Your task to perform on an android device: turn on the 24-hour format for clock Image 0: 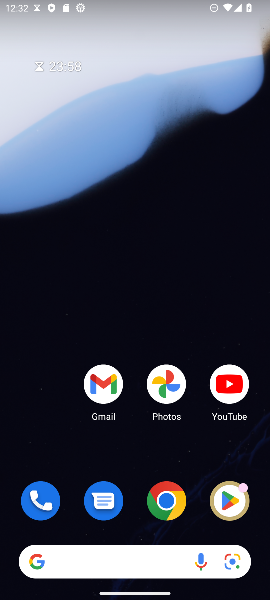
Step 0: drag from (128, 423) to (145, 238)
Your task to perform on an android device: turn on the 24-hour format for clock Image 1: 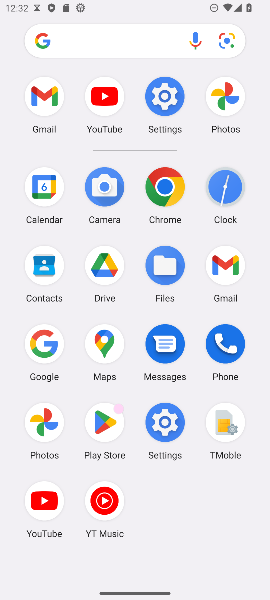
Step 1: click (221, 184)
Your task to perform on an android device: turn on the 24-hour format for clock Image 2: 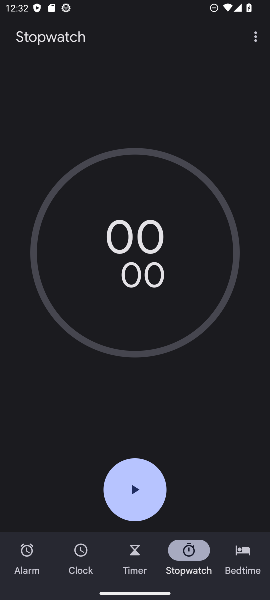
Step 2: click (253, 39)
Your task to perform on an android device: turn on the 24-hour format for clock Image 3: 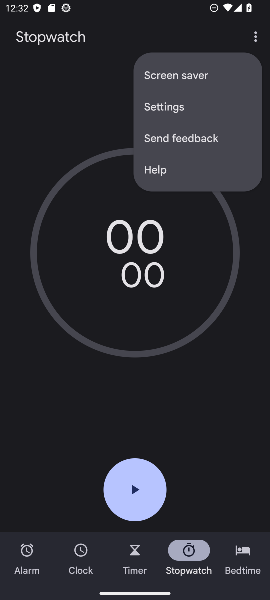
Step 3: click (177, 116)
Your task to perform on an android device: turn on the 24-hour format for clock Image 4: 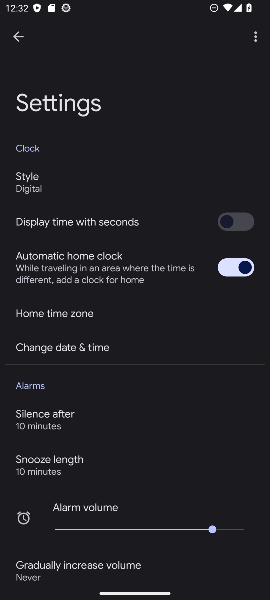
Step 4: click (72, 348)
Your task to perform on an android device: turn on the 24-hour format for clock Image 5: 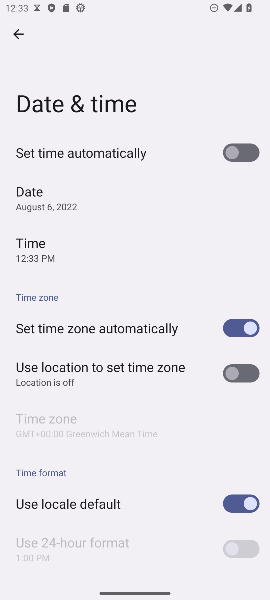
Step 5: click (231, 502)
Your task to perform on an android device: turn on the 24-hour format for clock Image 6: 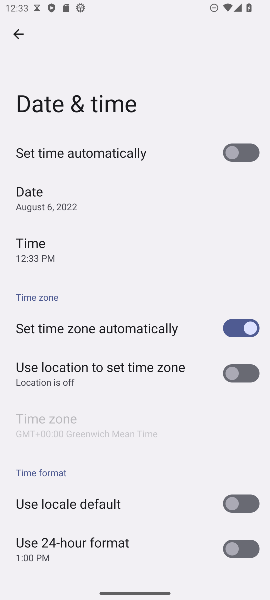
Step 6: click (255, 551)
Your task to perform on an android device: turn on the 24-hour format for clock Image 7: 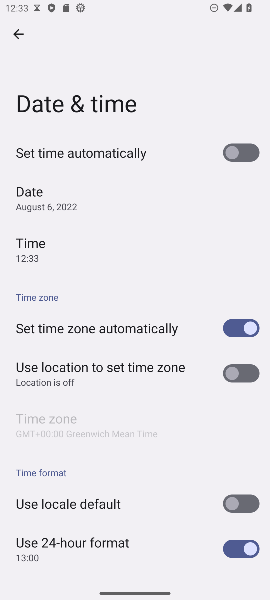
Step 7: task complete